Your task to perform on an android device: Open Yahoo.com Image 0: 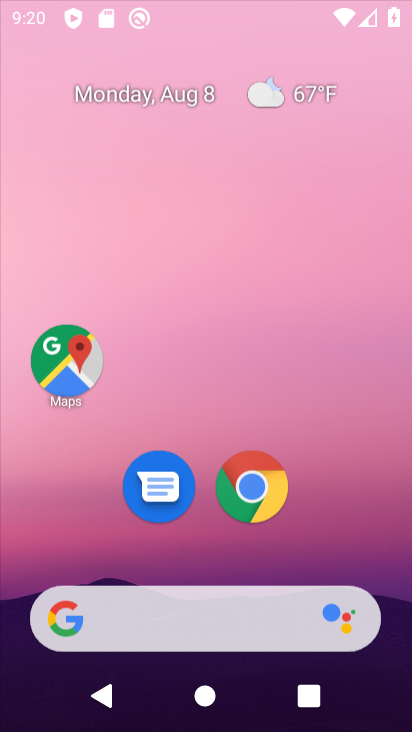
Step 0: click (212, 226)
Your task to perform on an android device: Open Yahoo.com Image 1: 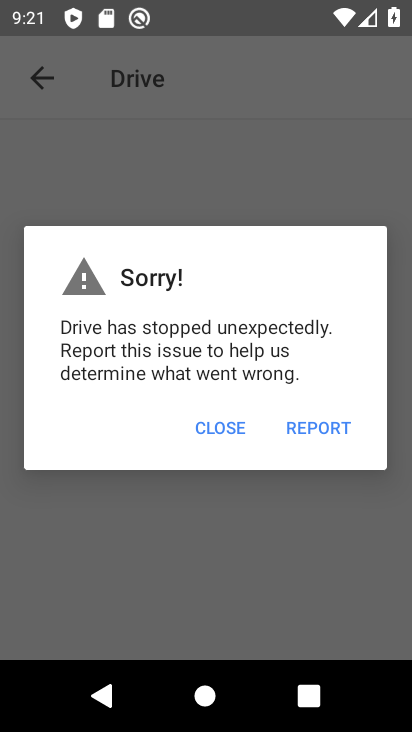
Step 1: click (220, 418)
Your task to perform on an android device: Open Yahoo.com Image 2: 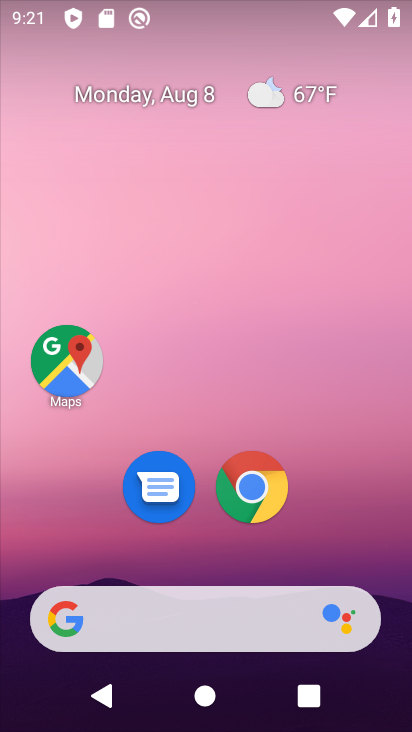
Step 2: click (253, 492)
Your task to perform on an android device: Open Yahoo.com Image 3: 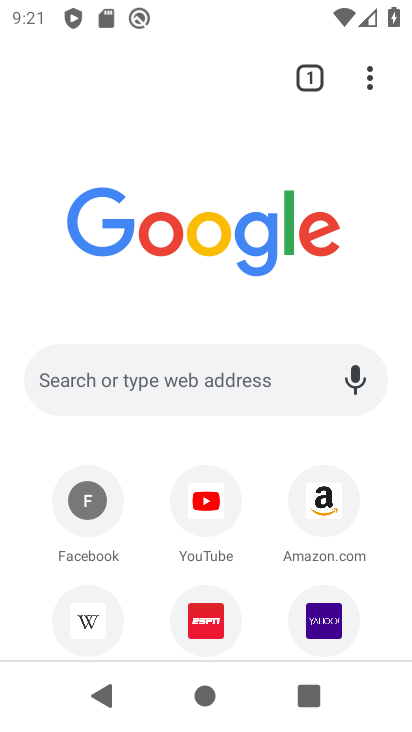
Step 3: click (320, 618)
Your task to perform on an android device: Open Yahoo.com Image 4: 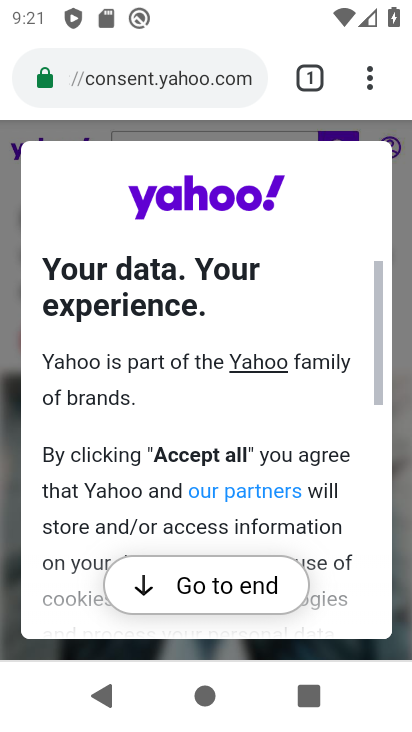
Step 4: click (246, 580)
Your task to perform on an android device: Open Yahoo.com Image 5: 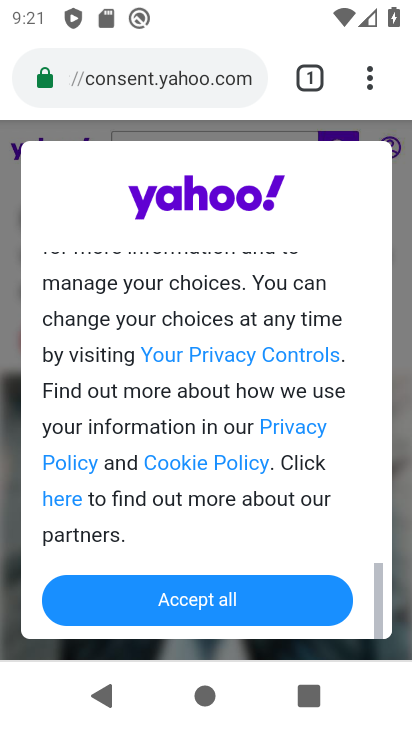
Step 5: click (222, 598)
Your task to perform on an android device: Open Yahoo.com Image 6: 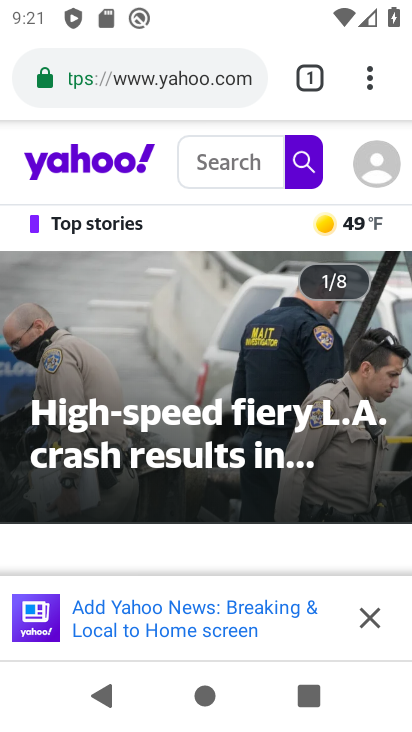
Step 6: task complete